Your task to perform on an android device: turn on sleep mode Image 0: 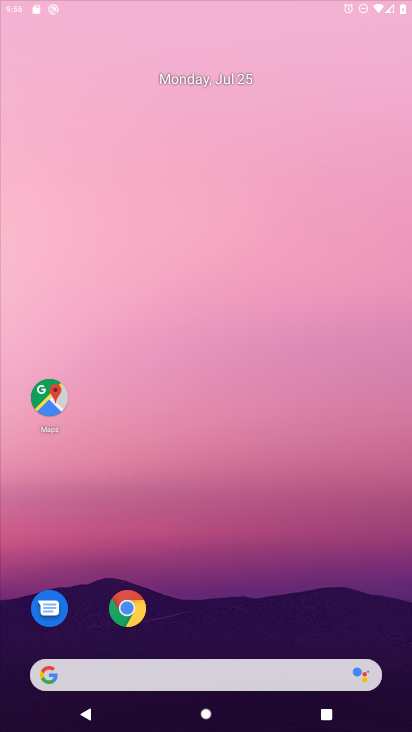
Step 0: click (104, 184)
Your task to perform on an android device: turn on sleep mode Image 1: 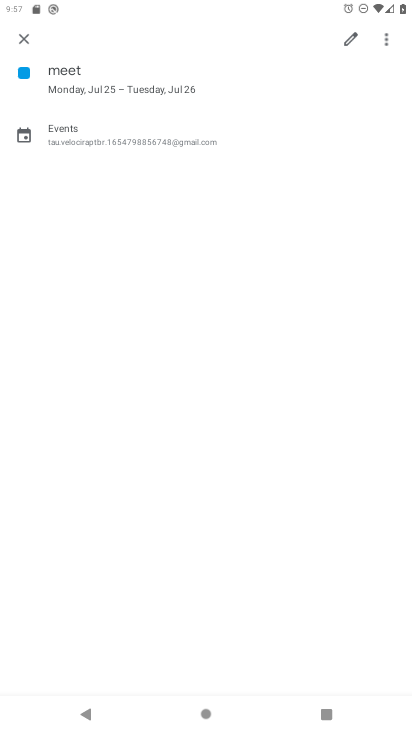
Step 1: press home button
Your task to perform on an android device: turn on sleep mode Image 2: 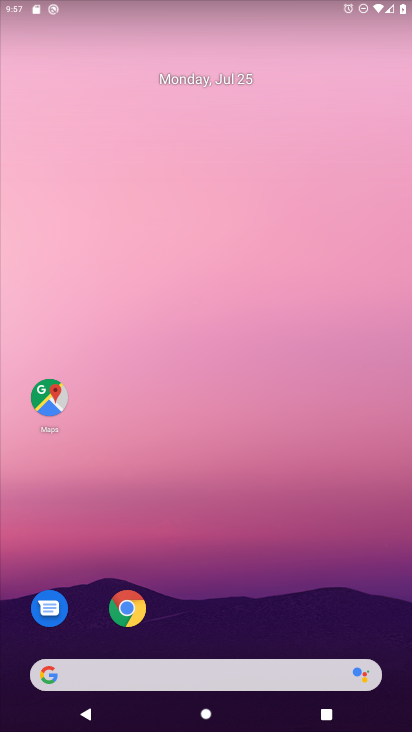
Step 2: drag from (270, 701) to (311, 7)
Your task to perform on an android device: turn on sleep mode Image 3: 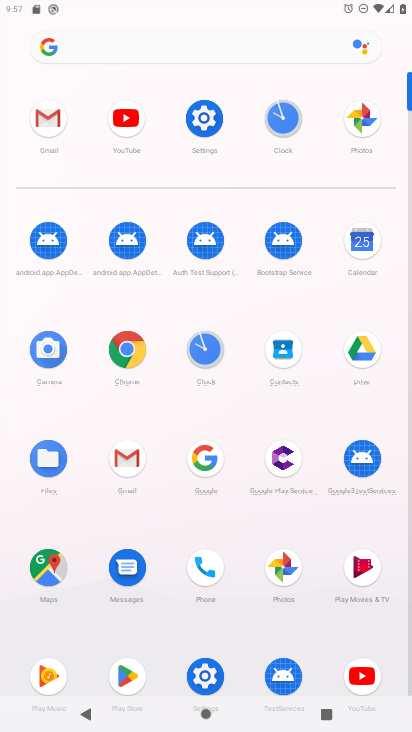
Step 3: click (203, 126)
Your task to perform on an android device: turn on sleep mode Image 4: 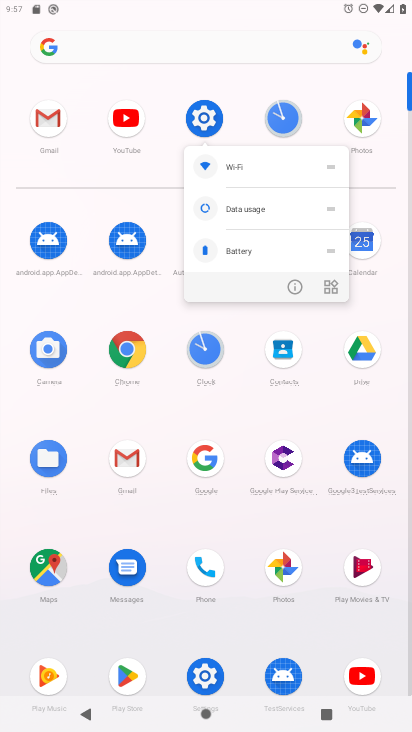
Step 4: click (203, 126)
Your task to perform on an android device: turn on sleep mode Image 5: 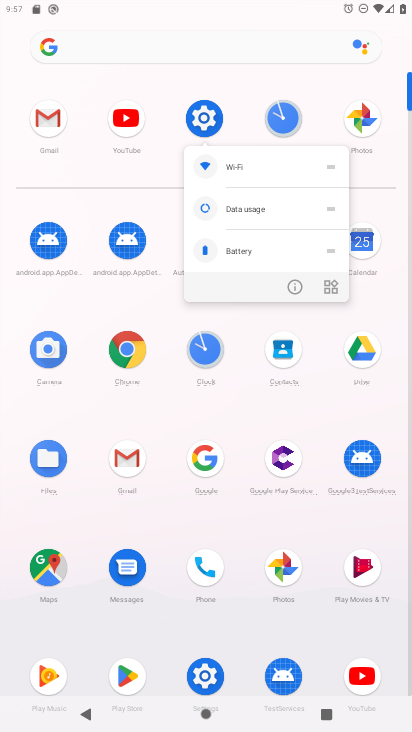
Step 5: click (203, 126)
Your task to perform on an android device: turn on sleep mode Image 6: 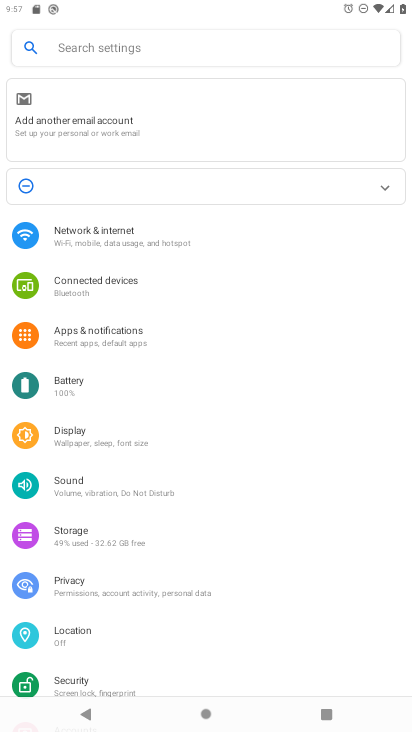
Step 6: drag from (232, 641) to (267, 1)
Your task to perform on an android device: turn on sleep mode Image 7: 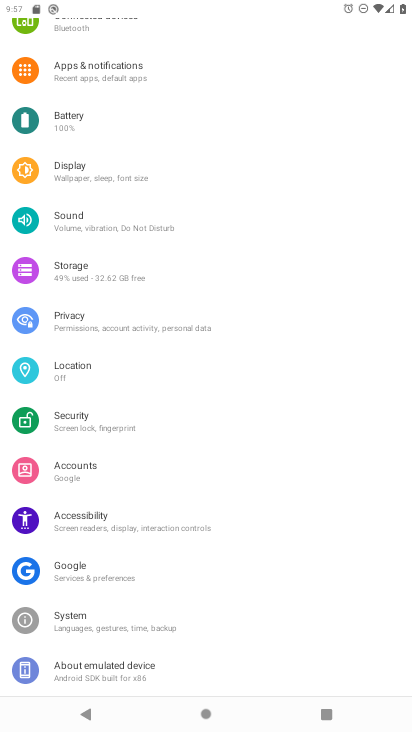
Step 7: click (104, 156)
Your task to perform on an android device: turn on sleep mode Image 8: 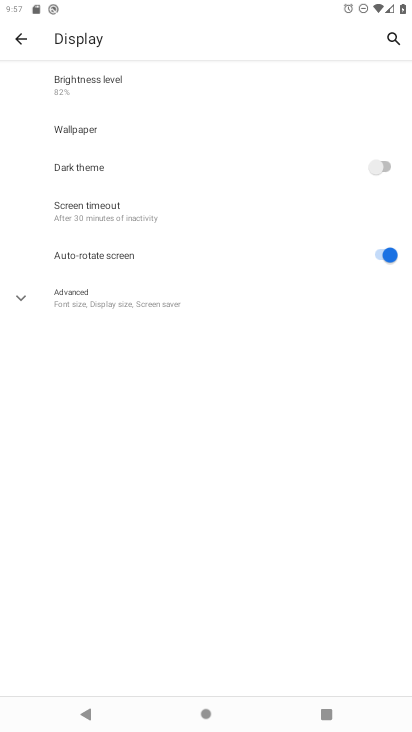
Step 8: click (122, 170)
Your task to perform on an android device: turn on sleep mode Image 9: 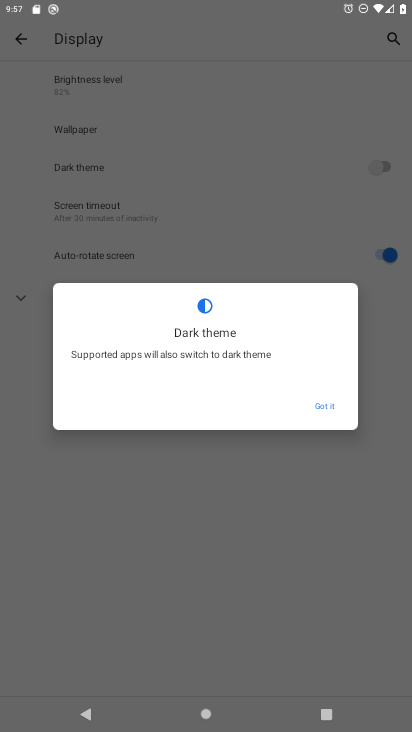
Step 9: click (329, 401)
Your task to perform on an android device: turn on sleep mode Image 10: 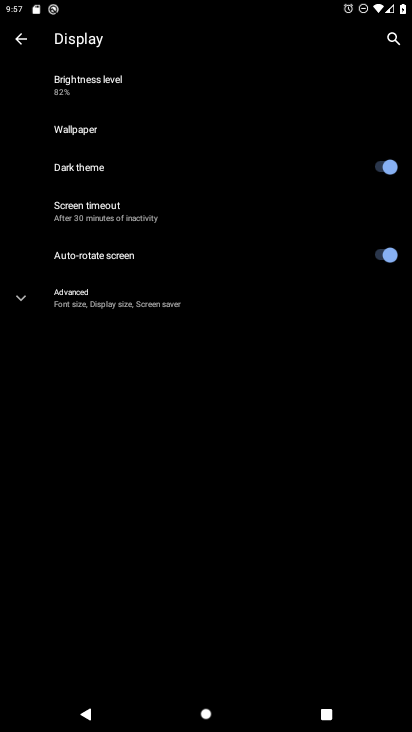
Step 10: task complete